Your task to perform on an android device: turn off improve location accuracy Image 0: 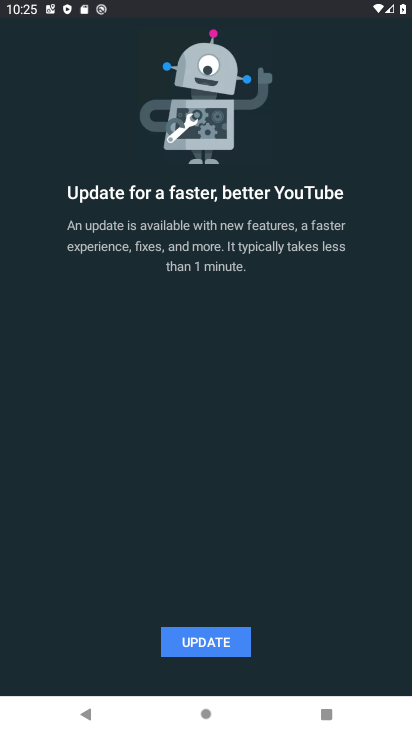
Step 0: press back button
Your task to perform on an android device: turn off improve location accuracy Image 1: 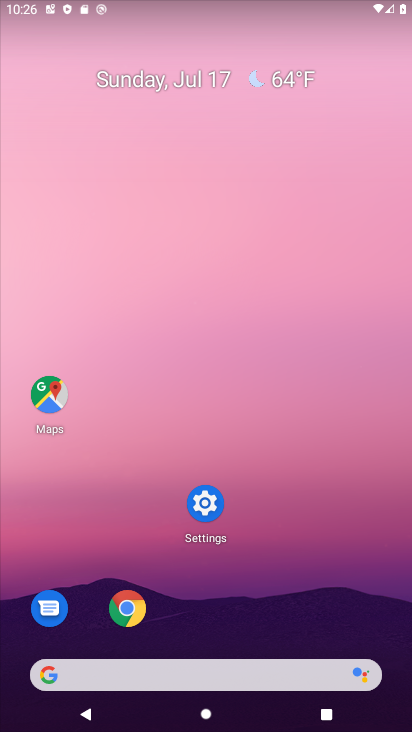
Step 1: drag from (383, 679) to (231, 45)
Your task to perform on an android device: turn off improve location accuracy Image 2: 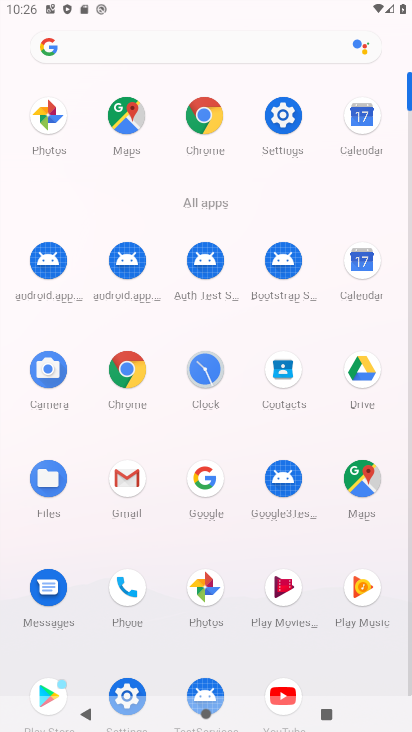
Step 2: click (282, 122)
Your task to perform on an android device: turn off improve location accuracy Image 3: 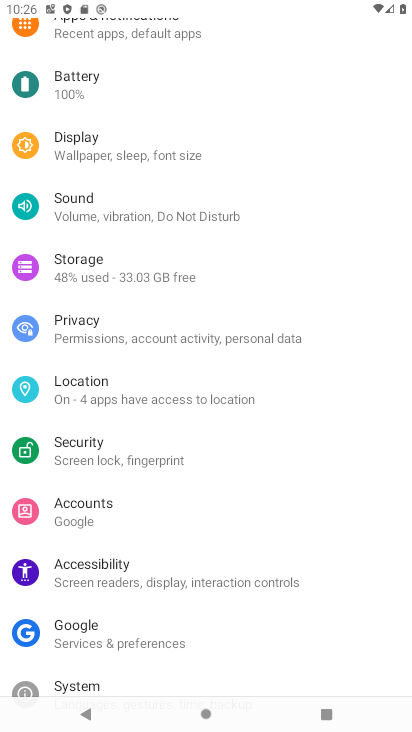
Step 3: click (93, 388)
Your task to perform on an android device: turn off improve location accuracy Image 4: 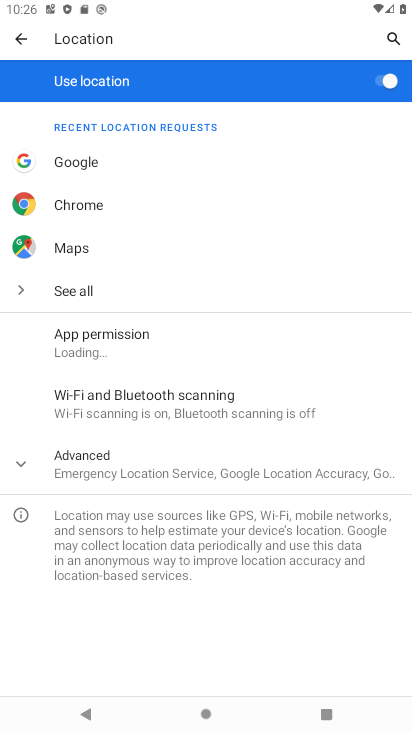
Step 4: click (20, 466)
Your task to perform on an android device: turn off improve location accuracy Image 5: 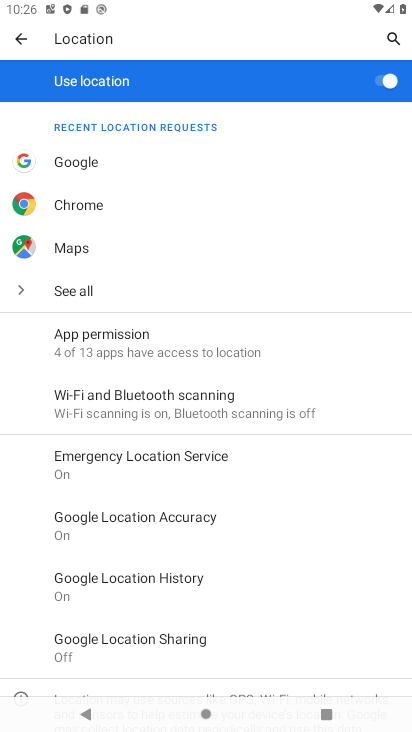
Step 5: click (109, 525)
Your task to perform on an android device: turn off improve location accuracy Image 6: 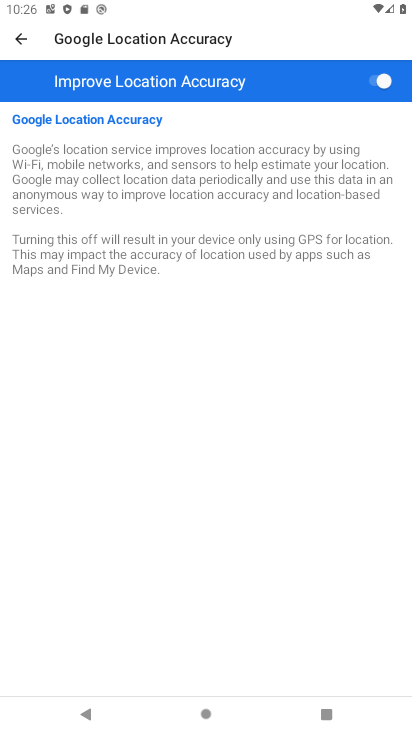
Step 6: click (370, 82)
Your task to perform on an android device: turn off improve location accuracy Image 7: 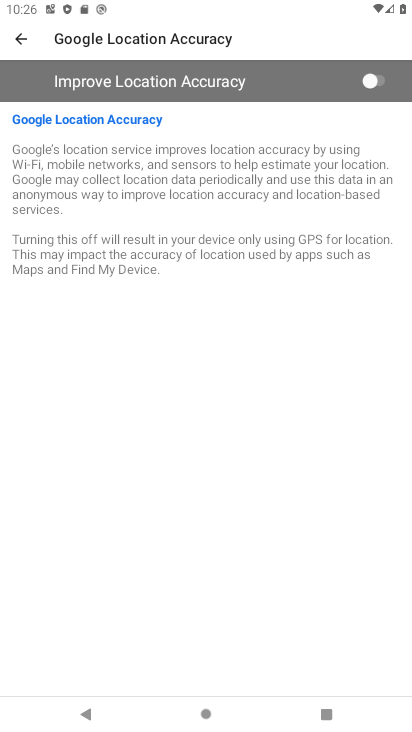
Step 7: click (385, 79)
Your task to perform on an android device: turn off improve location accuracy Image 8: 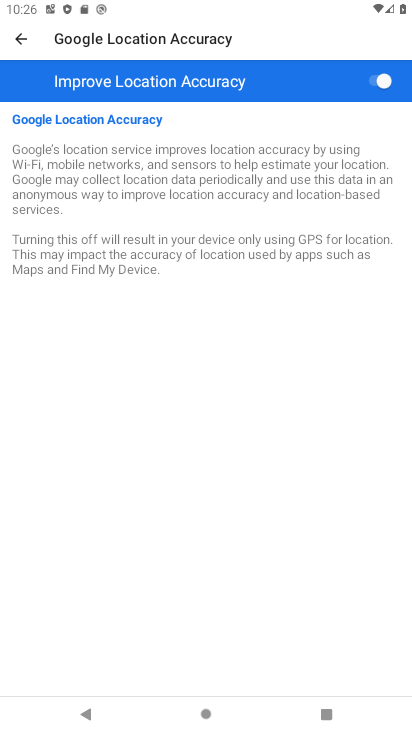
Step 8: click (367, 75)
Your task to perform on an android device: turn off improve location accuracy Image 9: 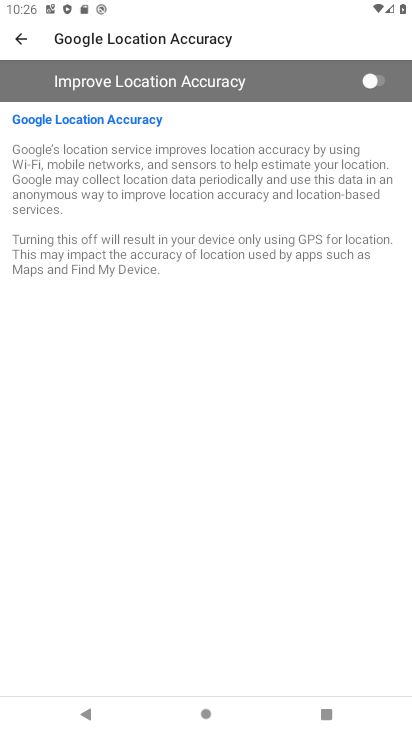
Step 9: task complete